Your task to perform on an android device: toggle show notifications on the lock screen Image 0: 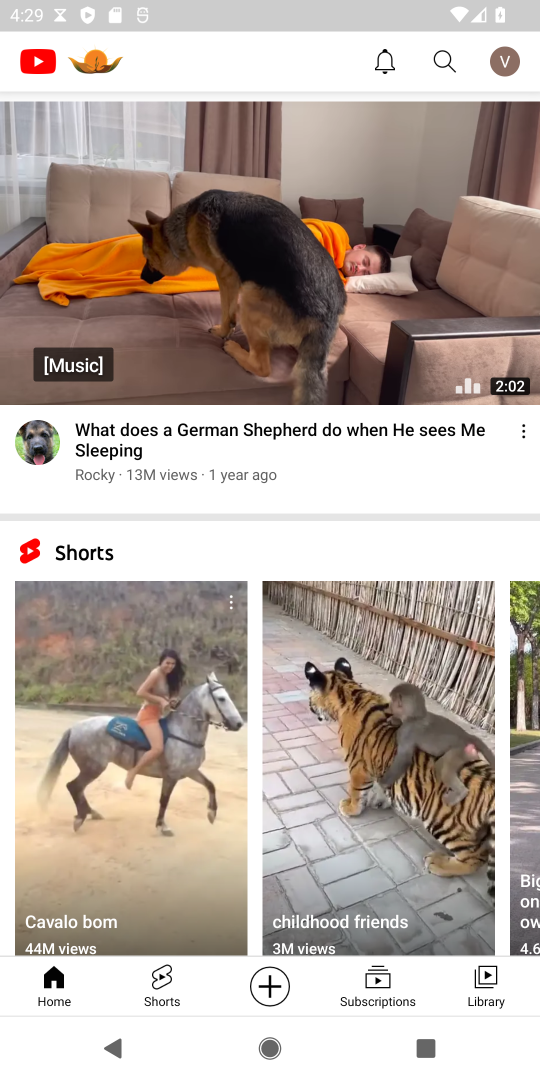
Step 0: press back button
Your task to perform on an android device: toggle show notifications on the lock screen Image 1: 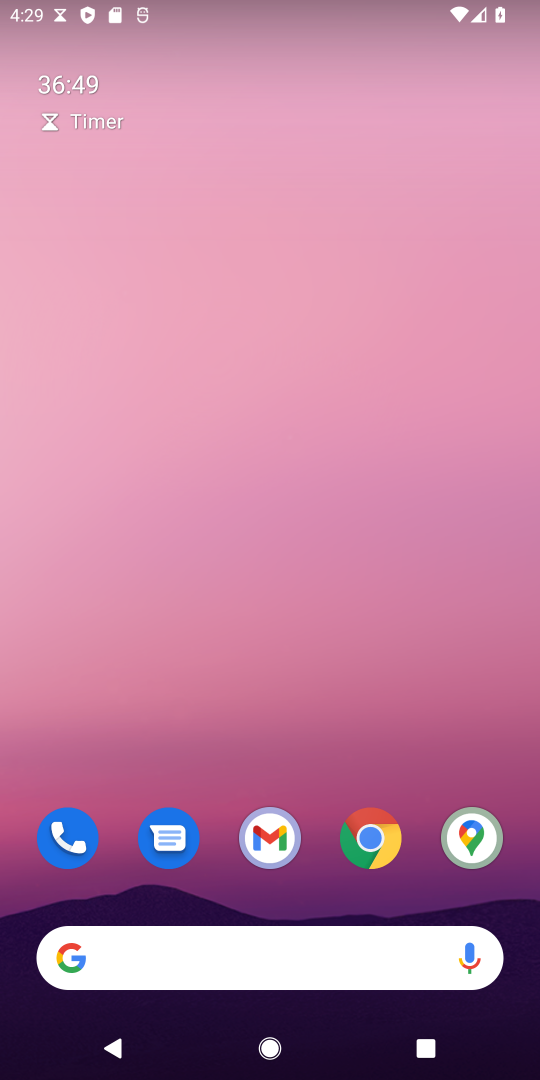
Step 1: drag from (303, 793) to (224, 123)
Your task to perform on an android device: toggle show notifications on the lock screen Image 2: 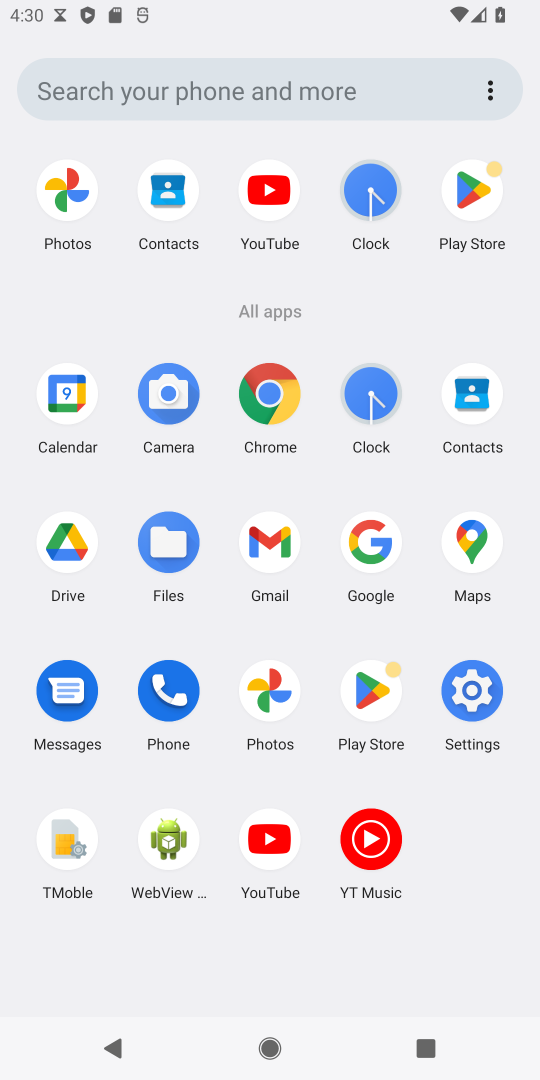
Step 2: click (462, 722)
Your task to perform on an android device: toggle show notifications on the lock screen Image 3: 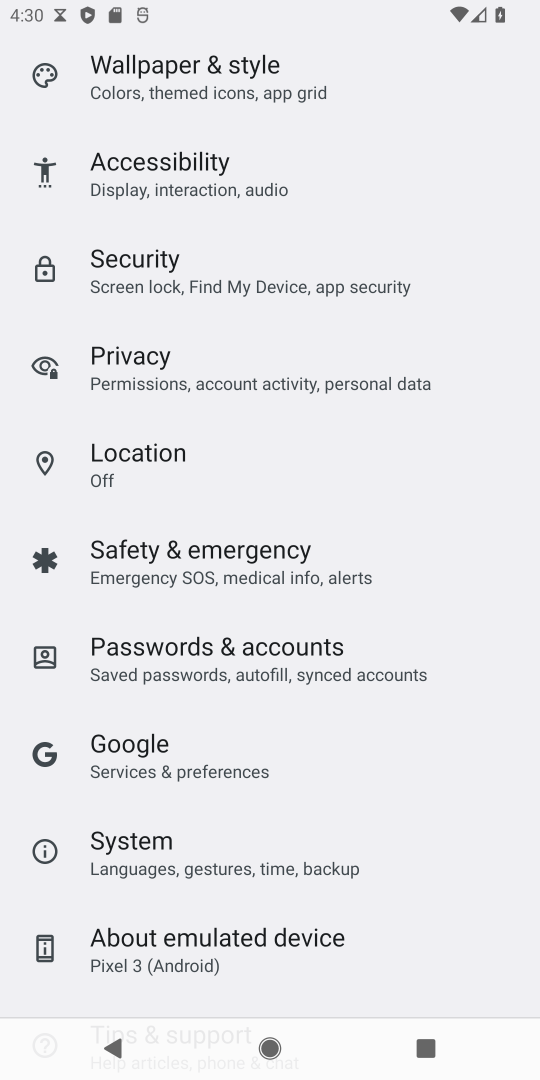
Step 3: drag from (247, 147) to (329, 1072)
Your task to perform on an android device: toggle show notifications on the lock screen Image 4: 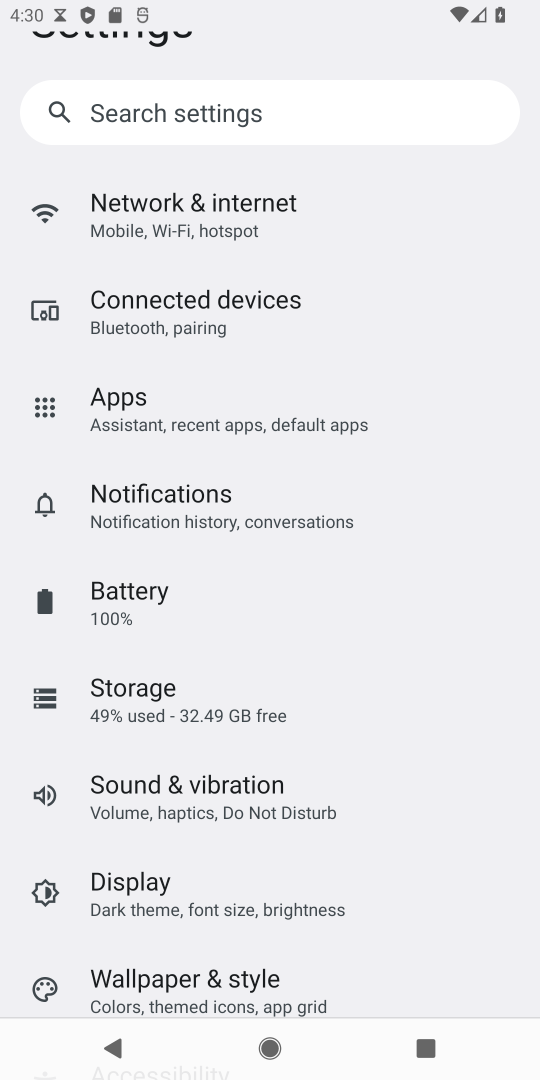
Step 4: drag from (270, 914) to (264, 794)
Your task to perform on an android device: toggle show notifications on the lock screen Image 5: 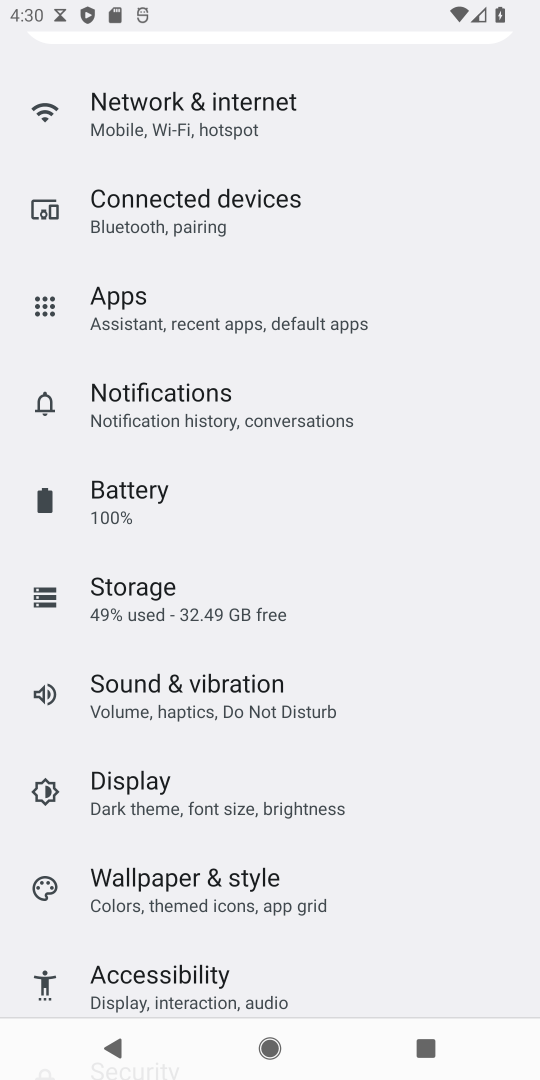
Step 5: click (262, 415)
Your task to perform on an android device: toggle show notifications on the lock screen Image 6: 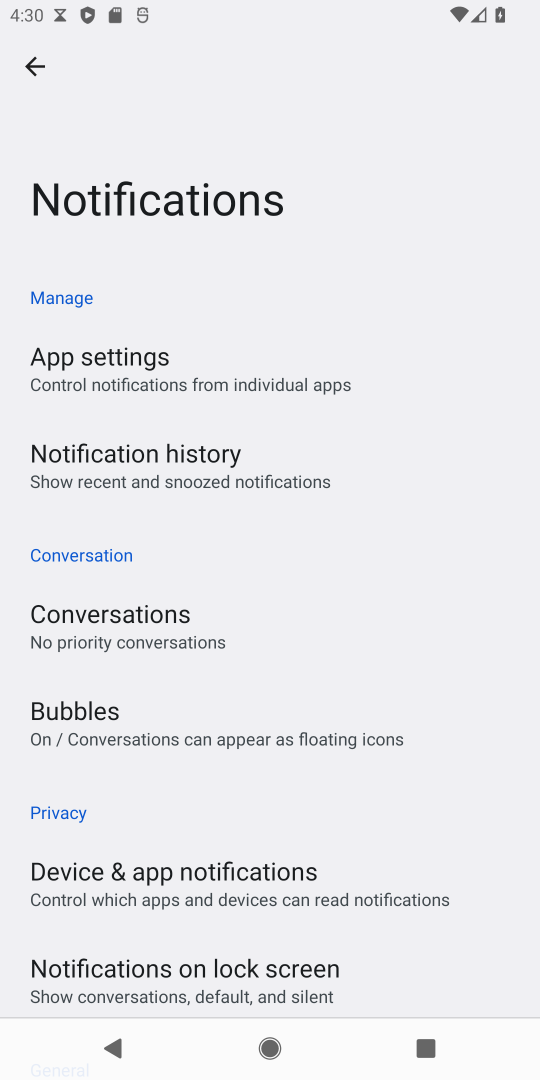
Step 6: click (403, 994)
Your task to perform on an android device: toggle show notifications on the lock screen Image 7: 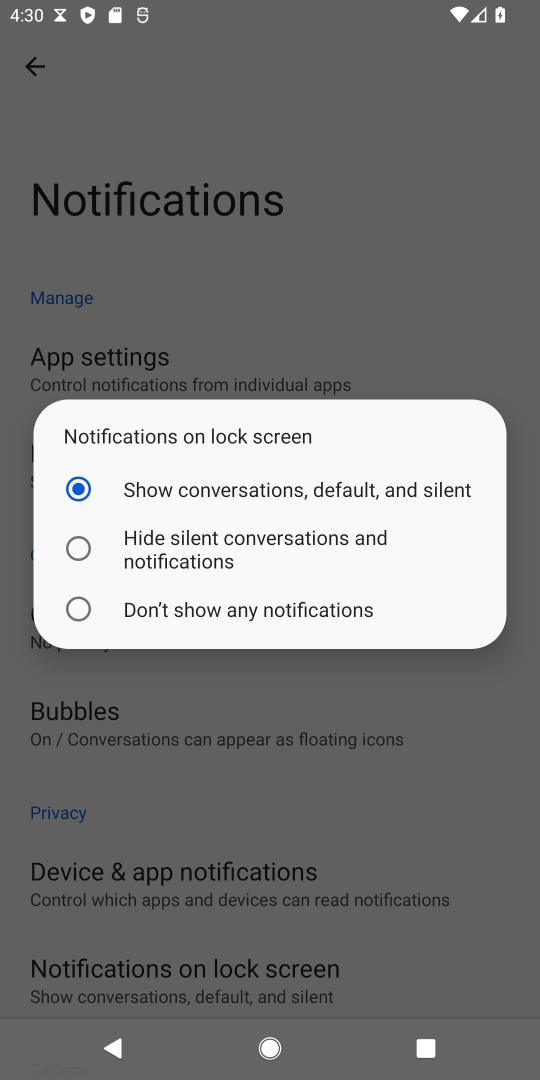
Step 7: click (301, 532)
Your task to perform on an android device: toggle show notifications on the lock screen Image 8: 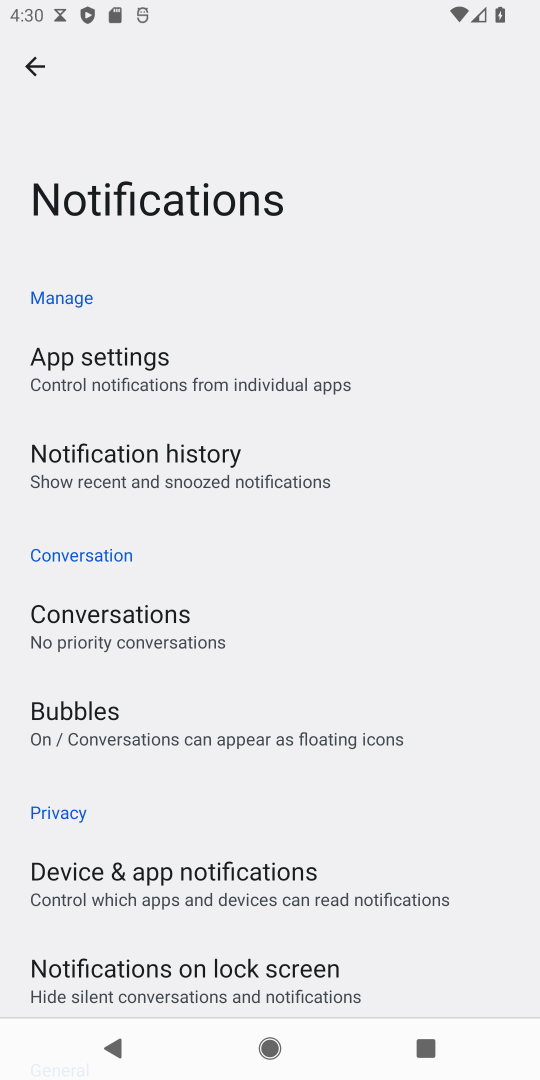
Step 8: task complete